Your task to perform on an android device: Check the settings for the Pandora app Image 0: 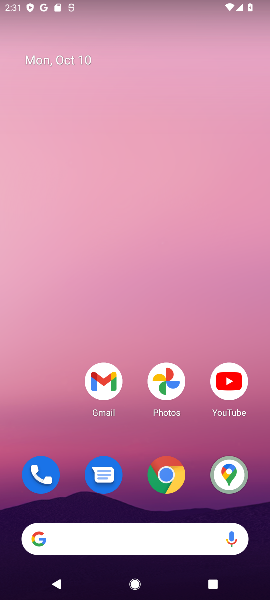
Step 0: drag from (152, 540) to (152, 145)
Your task to perform on an android device: Check the settings for the Pandora app Image 1: 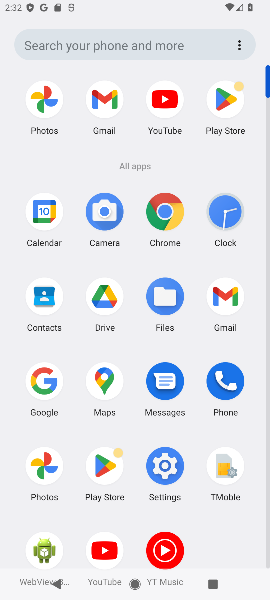
Step 1: task complete